Your task to perform on an android device: Check the news Image 0: 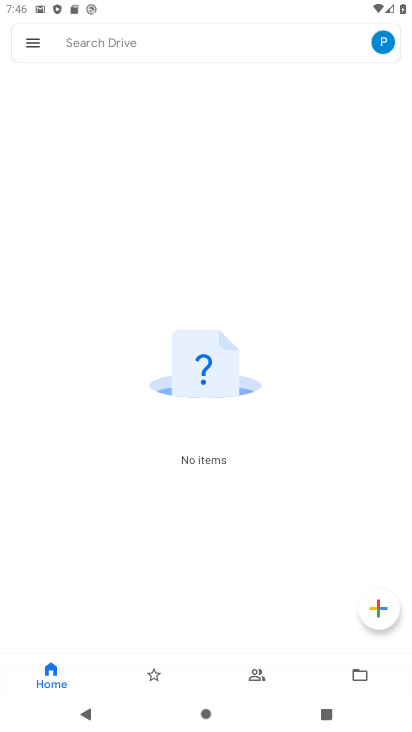
Step 0: press home button
Your task to perform on an android device: Check the news Image 1: 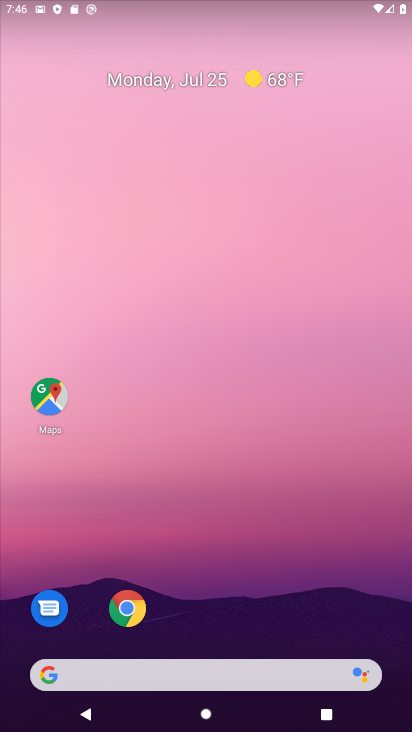
Step 1: click (94, 676)
Your task to perform on an android device: Check the news Image 2: 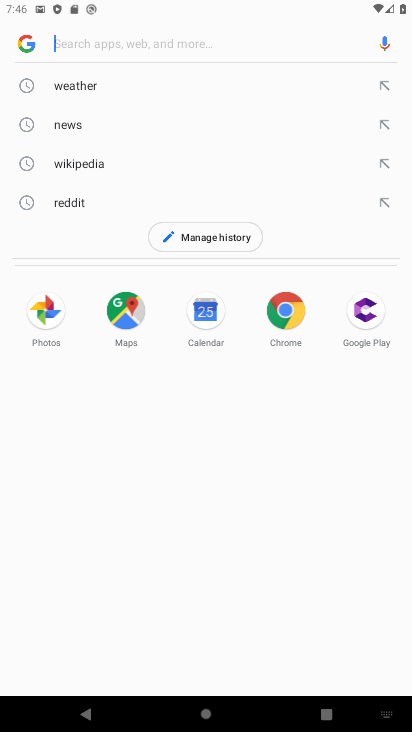
Step 2: click (57, 127)
Your task to perform on an android device: Check the news Image 3: 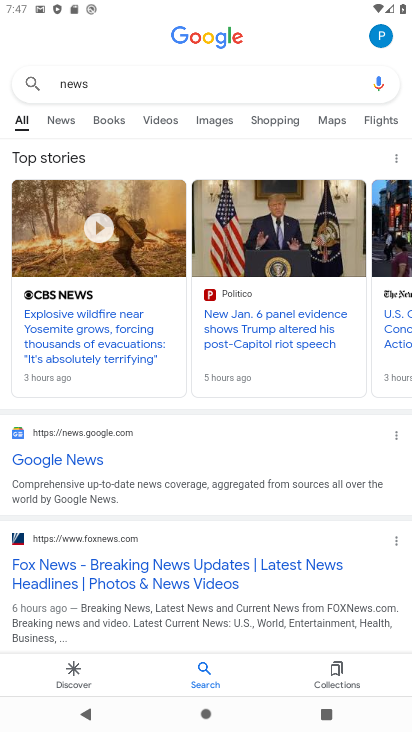
Step 3: click (60, 123)
Your task to perform on an android device: Check the news Image 4: 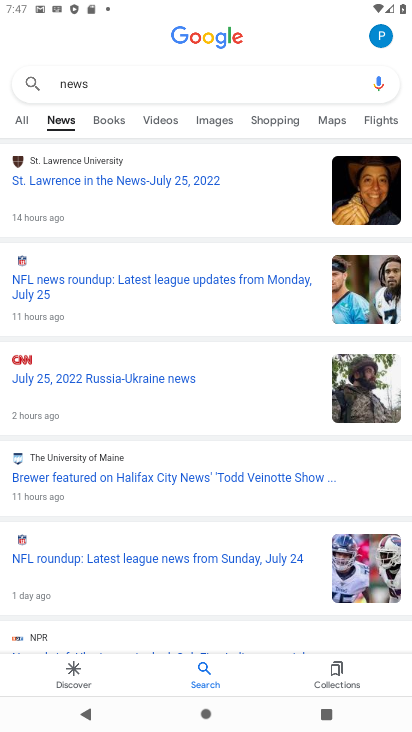
Step 4: task complete